Your task to perform on an android device: Show me the alarms in the clock app Image 0: 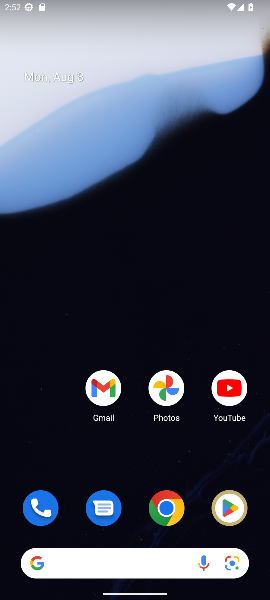
Step 0: drag from (41, 434) to (37, 121)
Your task to perform on an android device: Show me the alarms in the clock app Image 1: 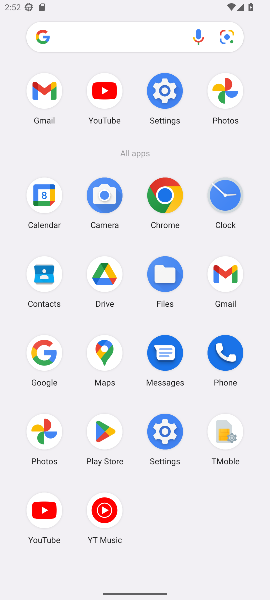
Step 1: click (227, 198)
Your task to perform on an android device: Show me the alarms in the clock app Image 2: 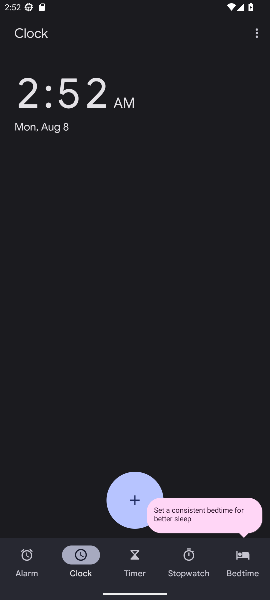
Step 2: click (29, 557)
Your task to perform on an android device: Show me the alarms in the clock app Image 3: 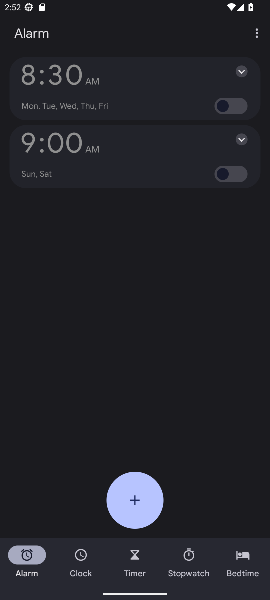
Step 3: task complete